Your task to perform on an android device: turn notification dots off Image 0: 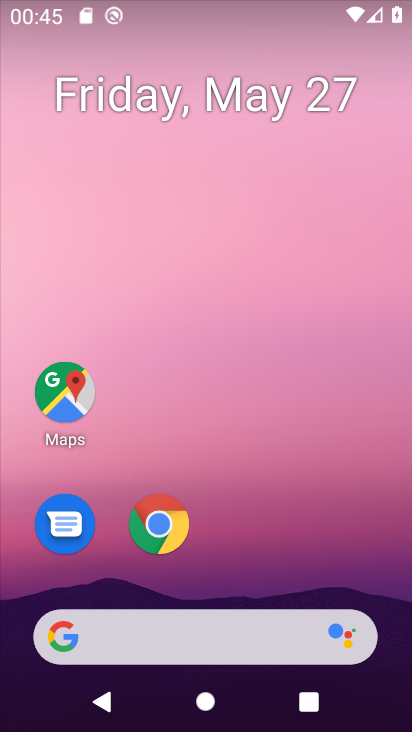
Step 0: drag from (250, 578) to (237, 5)
Your task to perform on an android device: turn notification dots off Image 1: 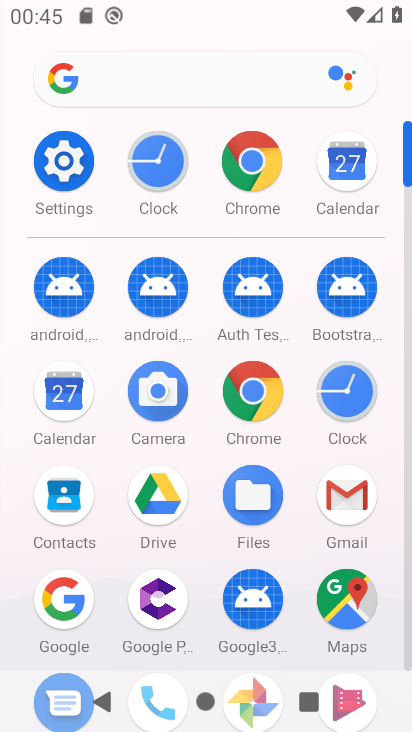
Step 1: click (68, 149)
Your task to perform on an android device: turn notification dots off Image 2: 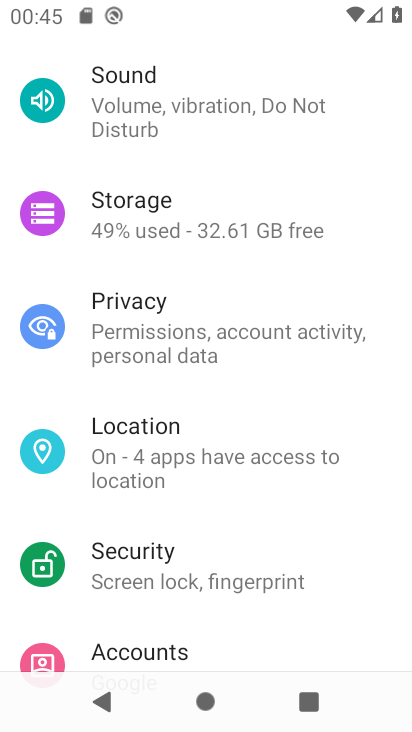
Step 2: drag from (199, 185) to (212, 622)
Your task to perform on an android device: turn notification dots off Image 3: 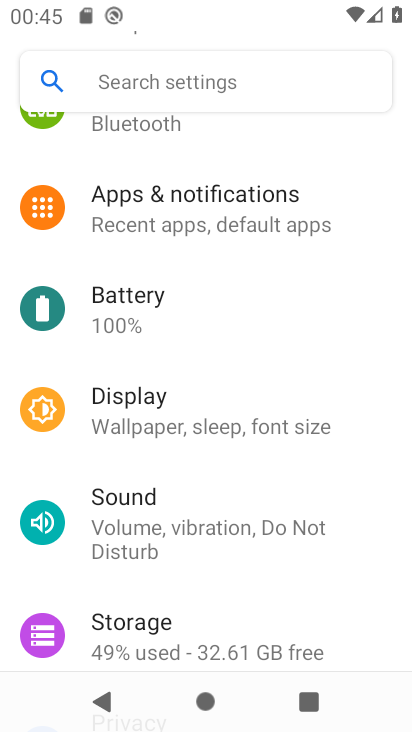
Step 3: click (237, 207)
Your task to perform on an android device: turn notification dots off Image 4: 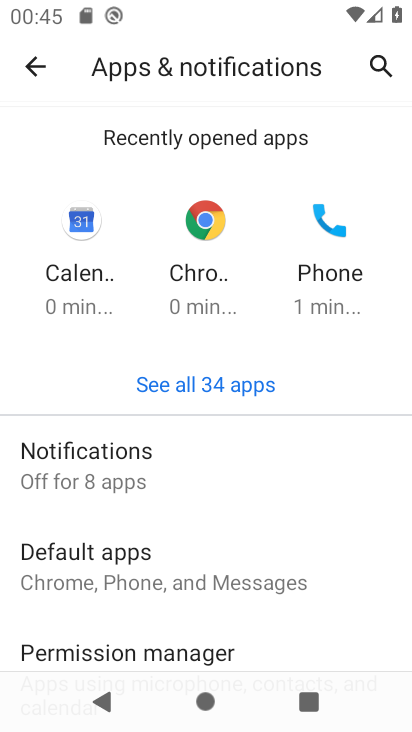
Step 4: drag from (240, 538) to (282, 364)
Your task to perform on an android device: turn notification dots off Image 5: 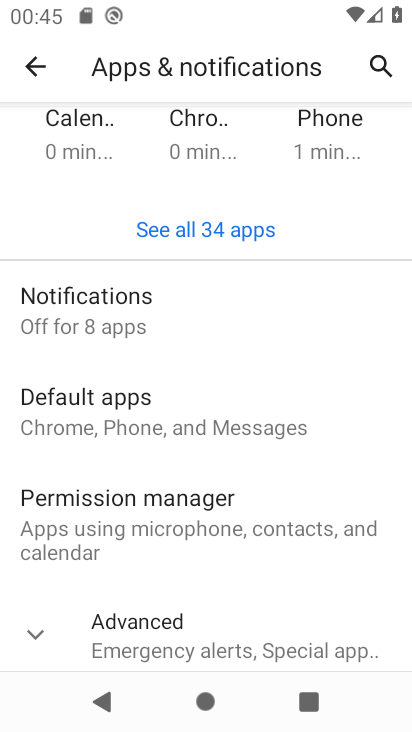
Step 5: click (236, 291)
Your task to perform on an android device: turn notification dots off Image 6: 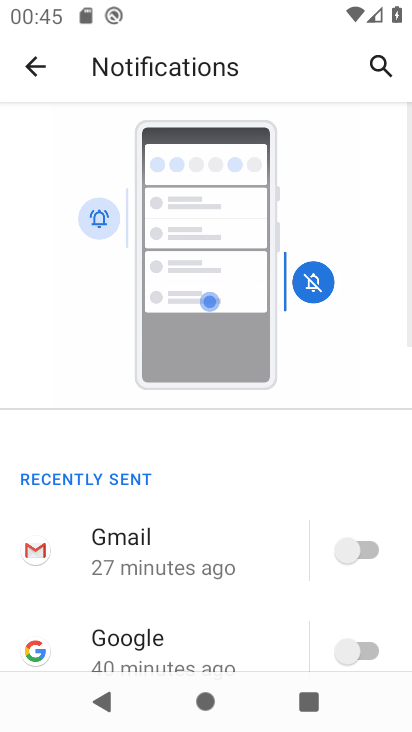
Step 6: drag from (204, 608) to (216, 97)
Your task to perform on an android device: turn notification dots off Image 7: 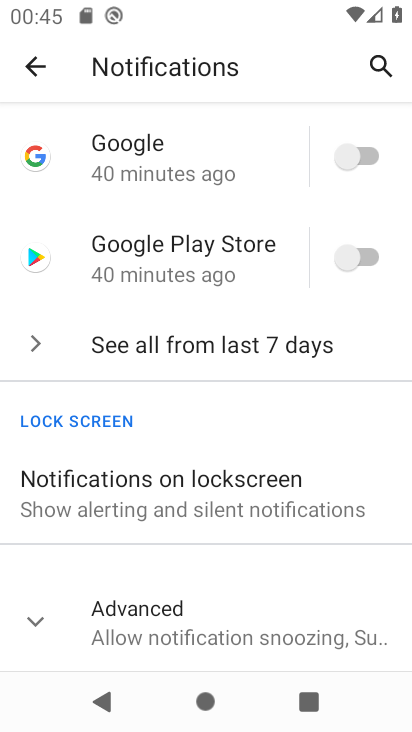
Step 7: click (35, 621)
Your task to perform on an android device: turn notification dots off Image 8: 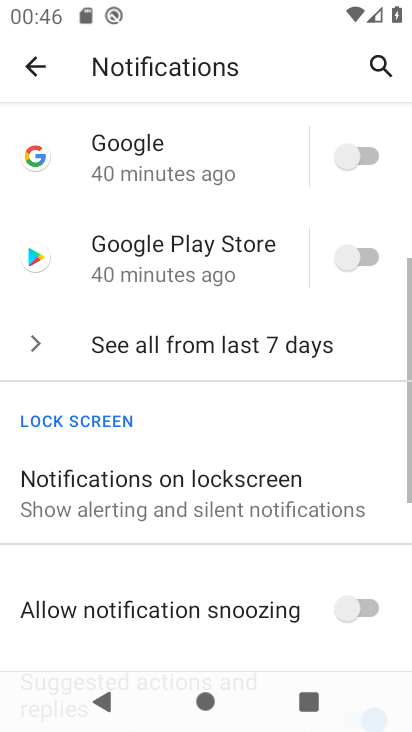
Step 8: drag from (175, 604) to (210, 178)
Your task to perform on an android device: turn notification dots off Image 9: 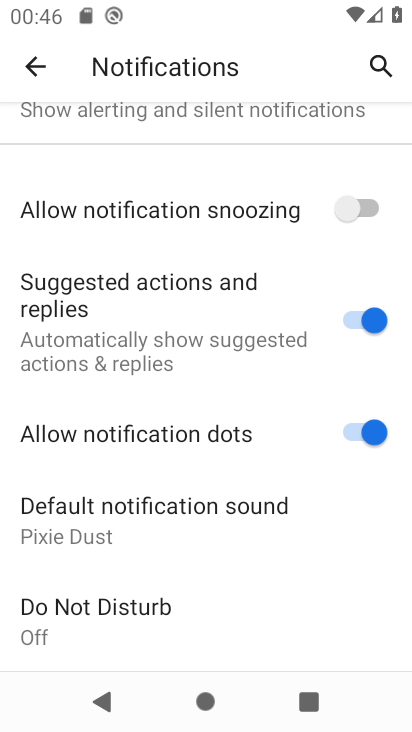
Step 9: click (359, 424)
Your task to perform on an android device: turn notification dots off Image 10: 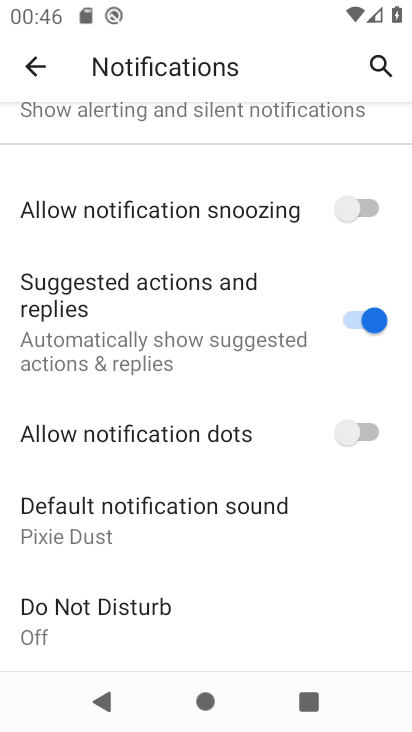
Step 10: task complete